Your task to perform on an android device: Open Google Chrome Image 0: 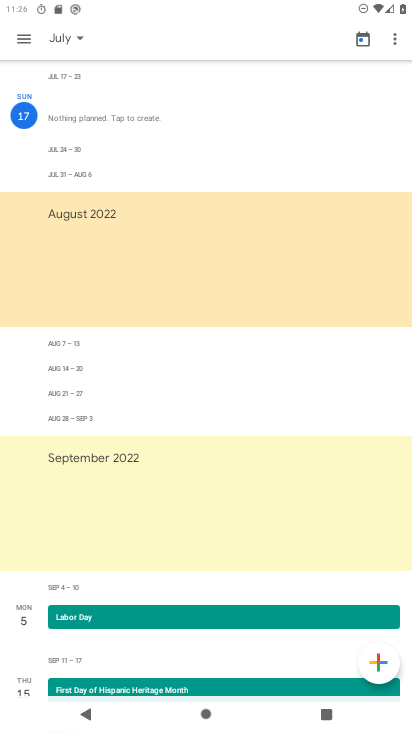
Step 0: press home button
Your task to perform on an android device: Open Google Chrome Image 1: 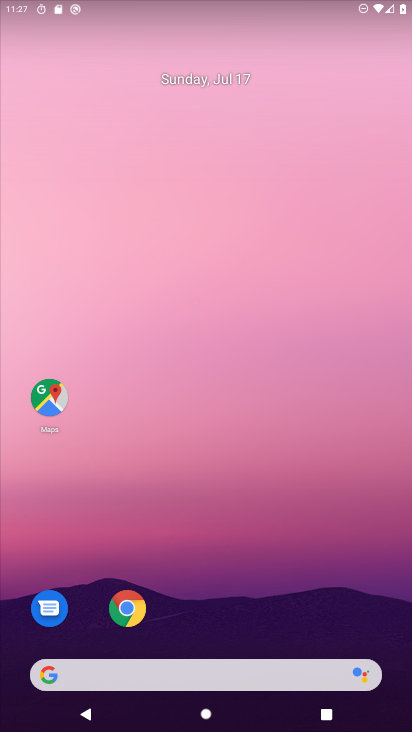
Step 1: click (124, 604)
Your task to perform on an android device: Open Google Chrome Image 2: 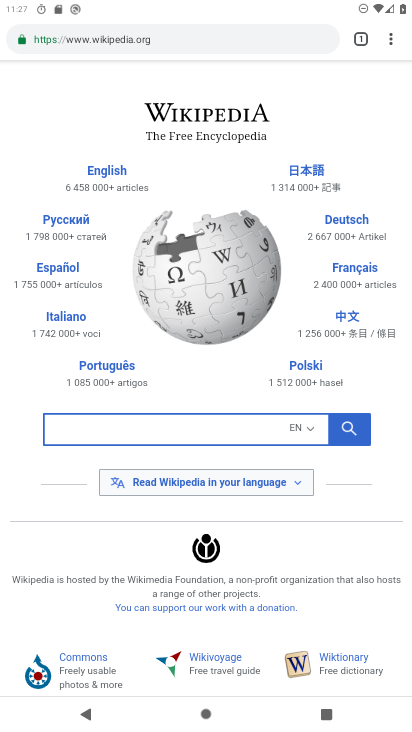
Step 2: task complete